Your task to perform on an android device: turn on bluetooth scan Image 0: 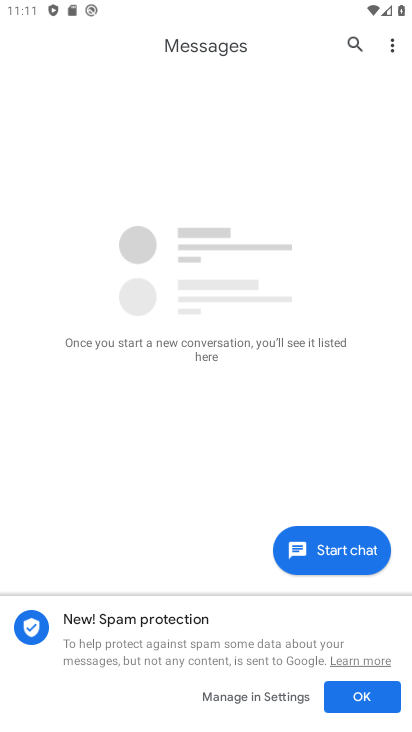
Step 0: press home button
Your task to perform on an android device: turn on bluetooth scan Image 1: 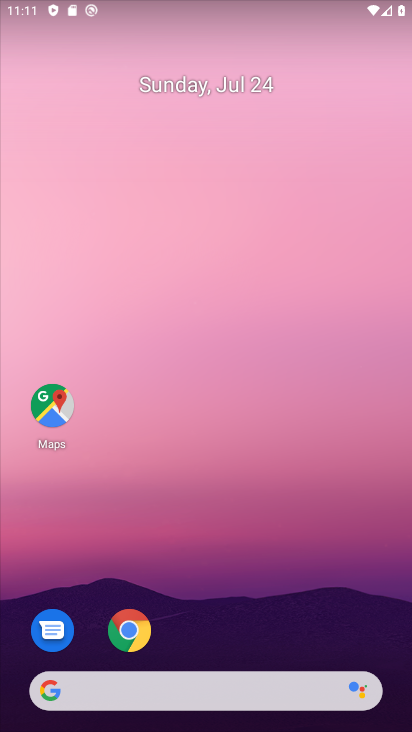
Step 1: drag from (299, 614) to (252, 152)
Your task to perform on an android device: turn on bluetooth scan Image 2: 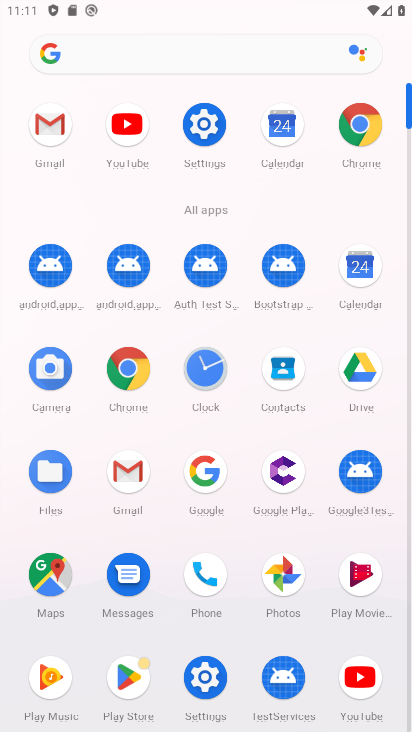
Step 2: click (203, 115)
Your task to perform on an android device: turn on bluetooth scan Image 3: 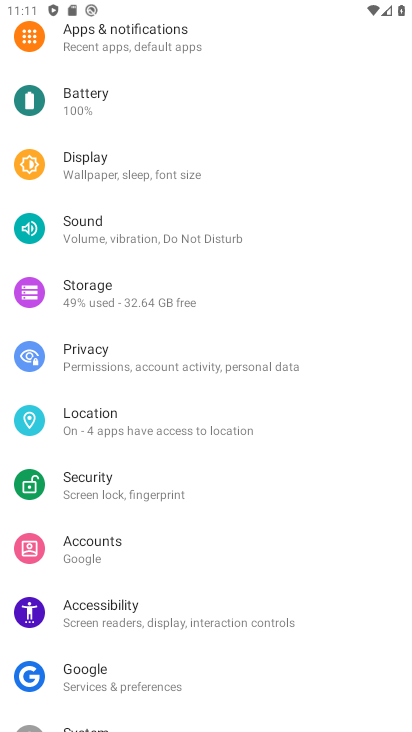
Step 3: click (116, 423)
Your task to perform on an android device: turn on bluetooth scan Image 4: 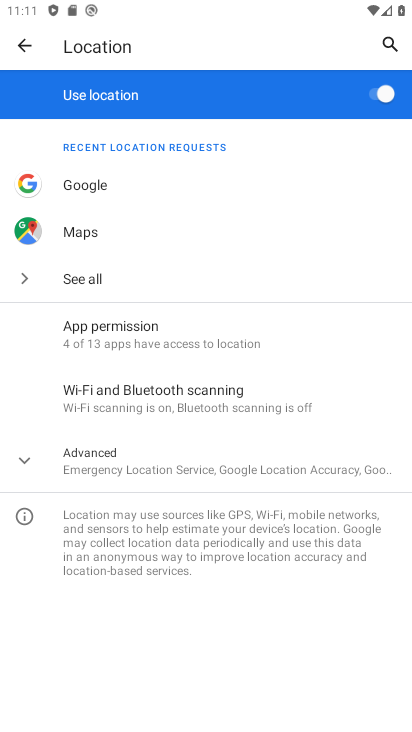
Step 4: click (169, 393)
Your task to perform on an android device: turn on bluetooth scan Image 5: 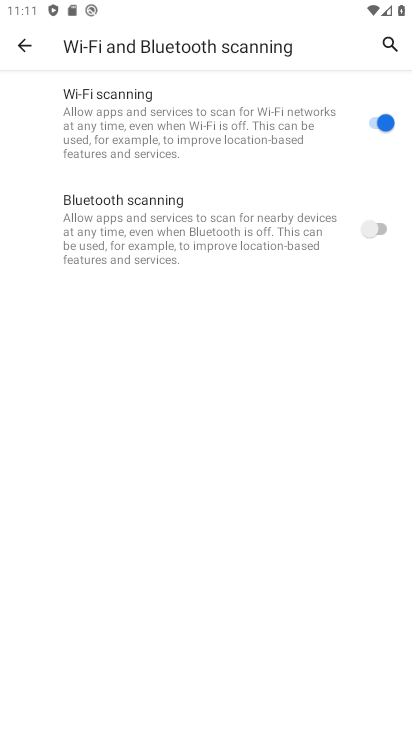
Step 5: click (386, 224)
Your task to perform on an android device: turn on bluetooth scan Image 6: 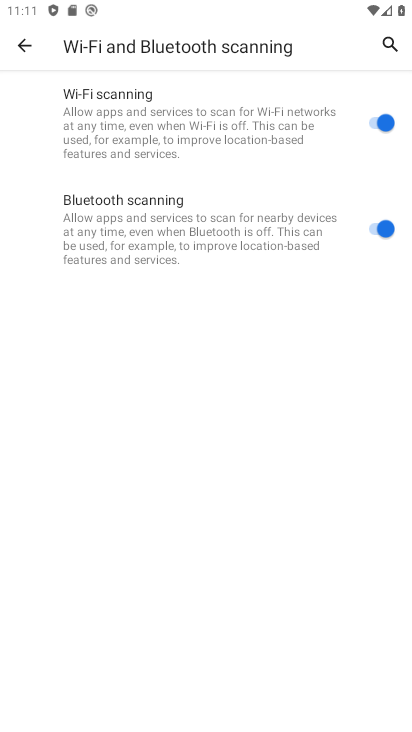
Step 6: task complete